Your task to perform on an android device: clear all cookies in the chrome app Image 0: 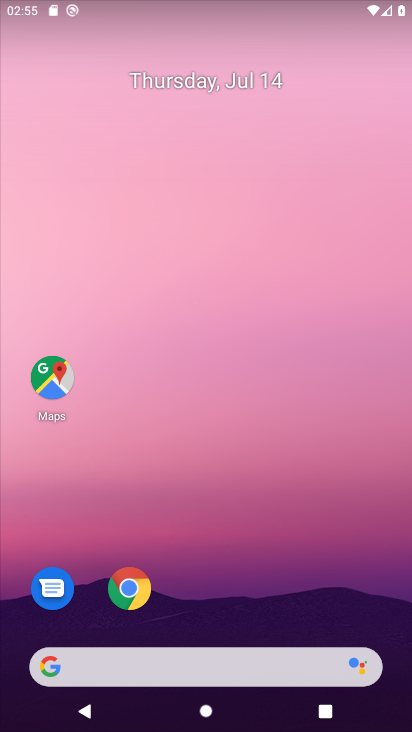
Step 0: click (131, 588)
Your task to perform on an android device: clear all cookies in the chrome app Image 1: 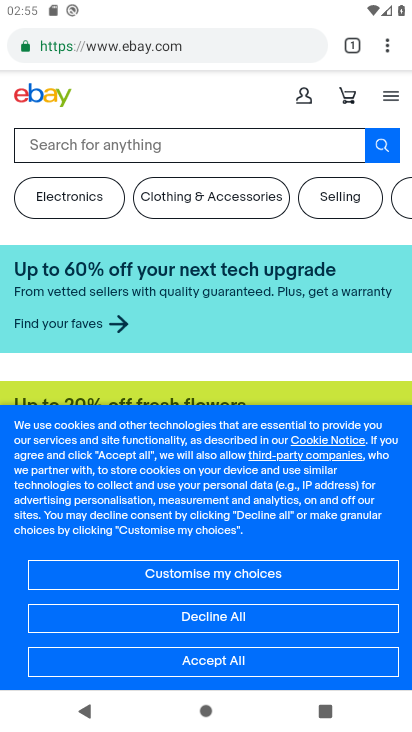
Step 1: click (393, 47)
Your task to perform on an android device: clear all cookies in the chrome app Image 2: 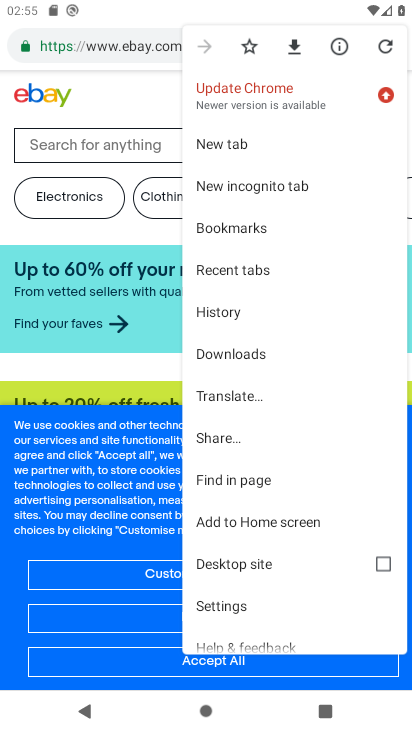
Step 2: click (255, 299)
Your task to perform on an android device: clear all cookies in the chrome app Image 3: 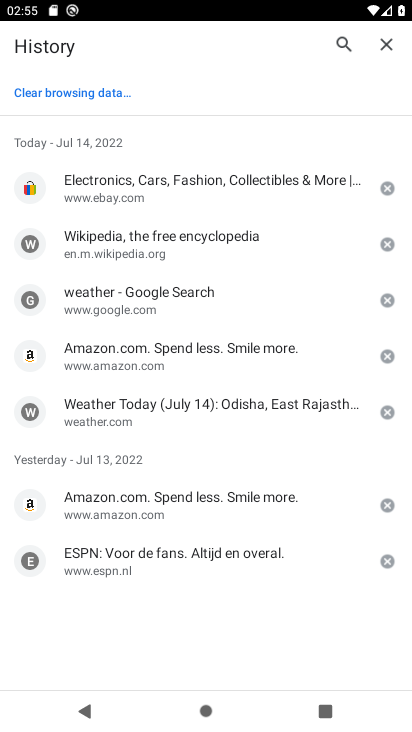
Step 3: click (87, 93)
Your task to perform on an android device: clear all cookies in the chrome app Image 4: 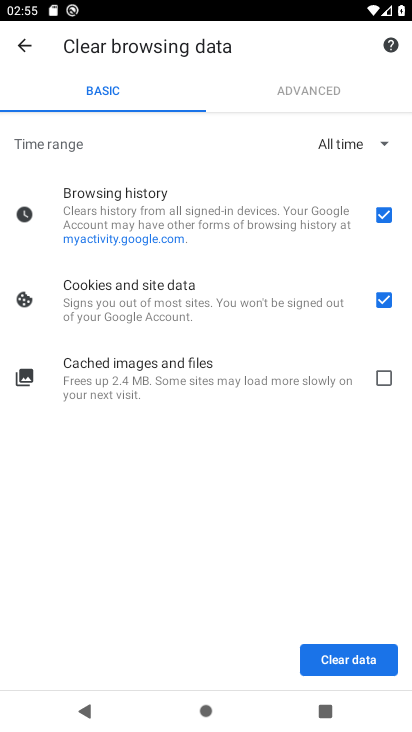
Step 4: drag from (386, 379) to (322, 287)
Your task to perform on an android device: clear all cookies in the chrome app Image 5: 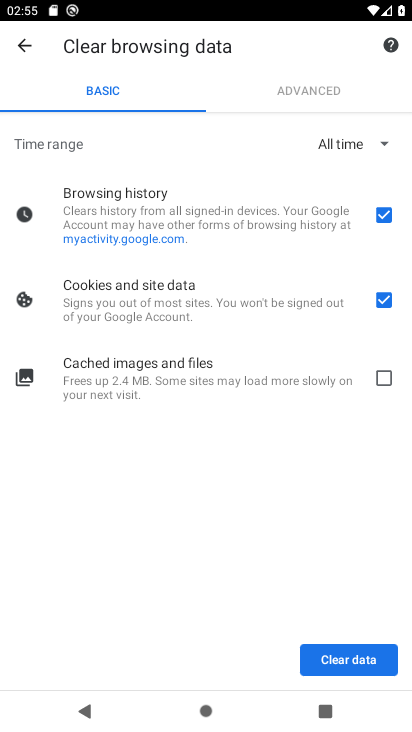
Step 5: click (387, 213)
Your task to perform on an android device: clear all cookies in the chrome app Image 6: 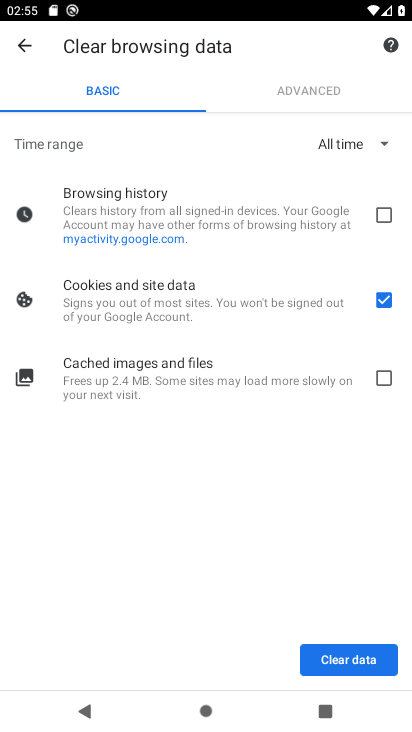
Step 6: click (379, 649)
Your task to perform on an android device: clear all cookies in the chrome app Image 7: 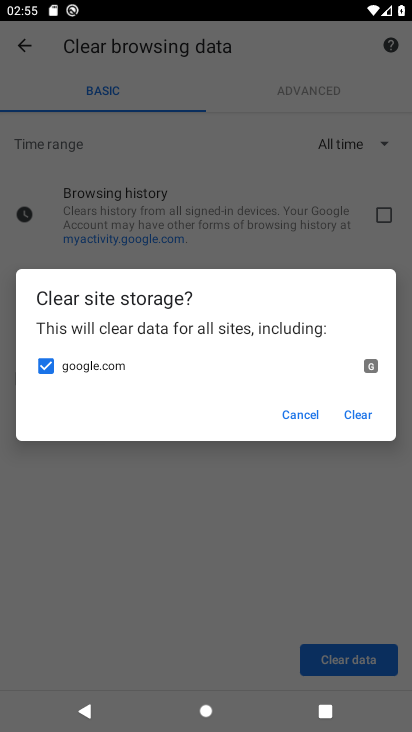
Step 7: click (358, 424)
Your task to perform on an android device: clear all cookies in the chrome app Image 8: 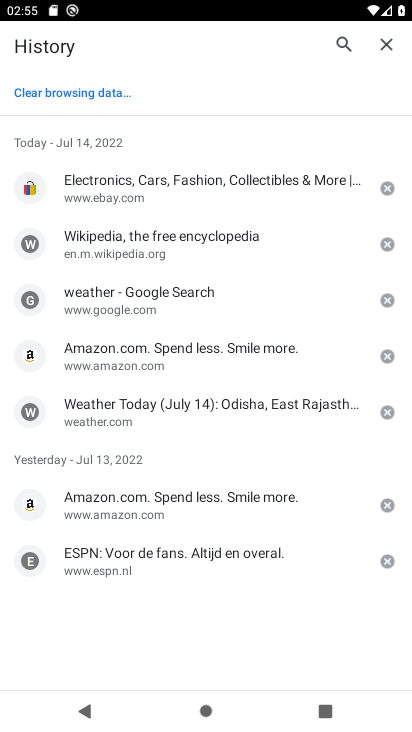
Step 8: task complete